Your task to perform on an android device: change the clock display to show seconds Image 0: 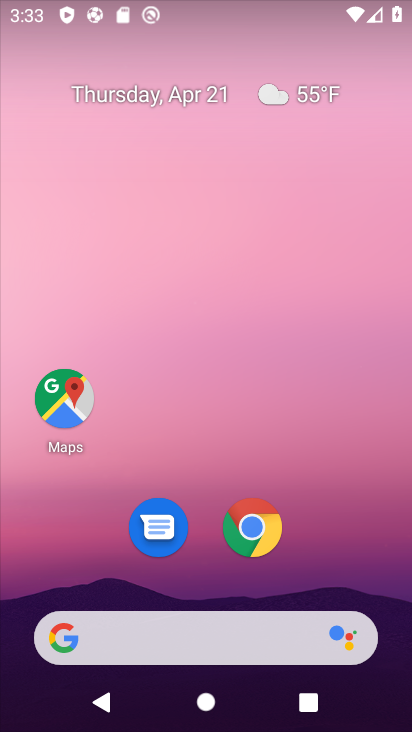
Step 0: drag from (303, 510) to (225, 225)
Your task to perform on an android device: change the clock display to show seconds Image 1: 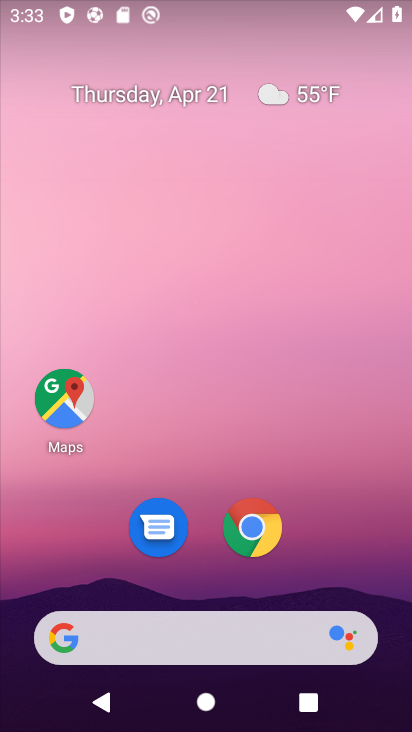
Step 1: drag from (315, 491) to (277, 124)
Your task to perform on an android device: change the clock display to show seconds Image 2: 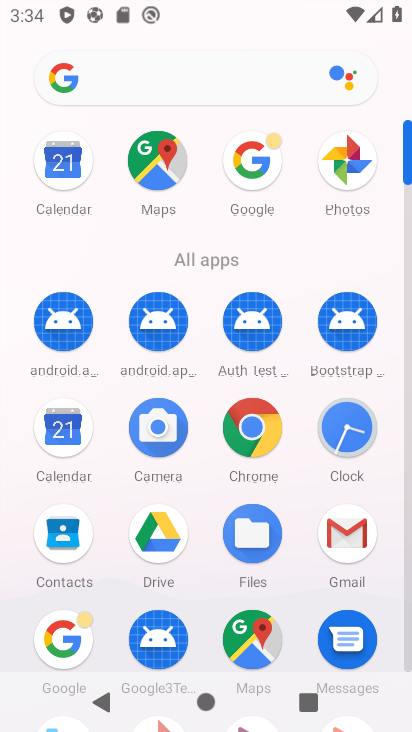
Step 2: drag from (297, 553) to (246, 333)
Your task to perform on an android device: change the clock display to show seconds Image 3: 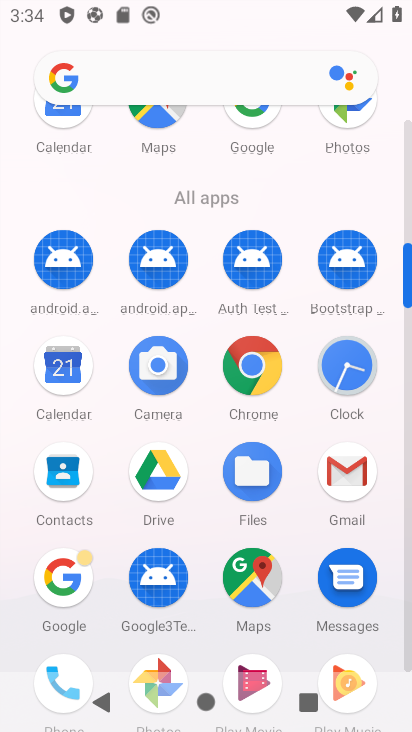
Step 3: drag from (294, 400) to (298, 550)
Your task to perform on an android device: change the clock display to show seconds Image 4: 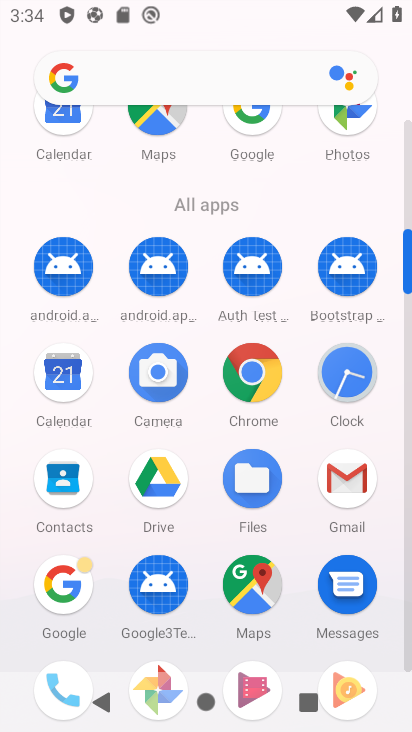
Step 4: drag from (301, 341) to (308, 510)
Your task to perform on an android device: change the clock display to show seconds Image 5: 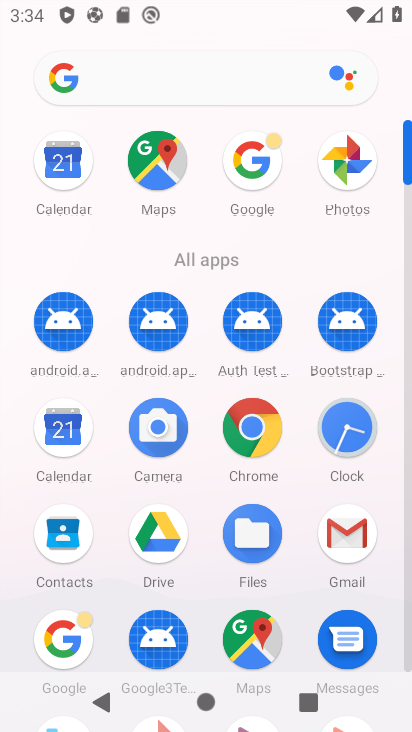
Step 5: click (341, 431)
Your task to perform on an android device: change the clock display to show seconds Image 6: 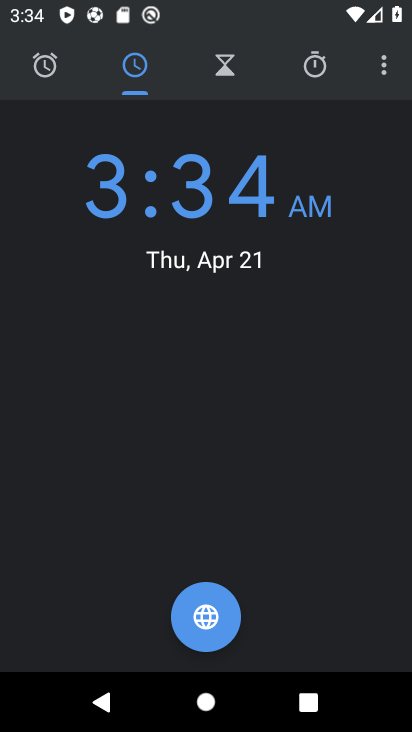
Step 6: click (385, 76)
Your task to perform on an android device: change the clock display to show seconds Image 7: 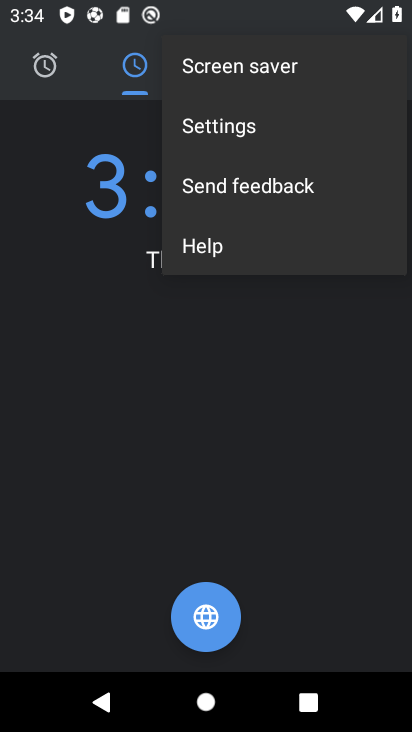
Step 7: click (206, 136)
Your task to perform on an android device: change the clock display to show seconds Image 8: 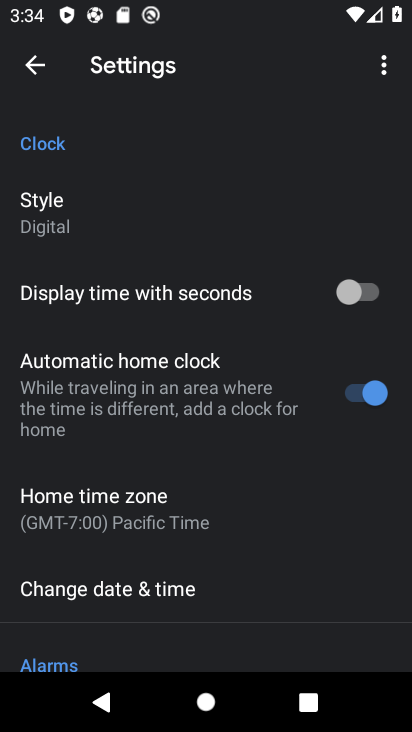
Step 8: click (367, 297)
Your task to perform on an android device: change the clock display to show seconds Image 9: 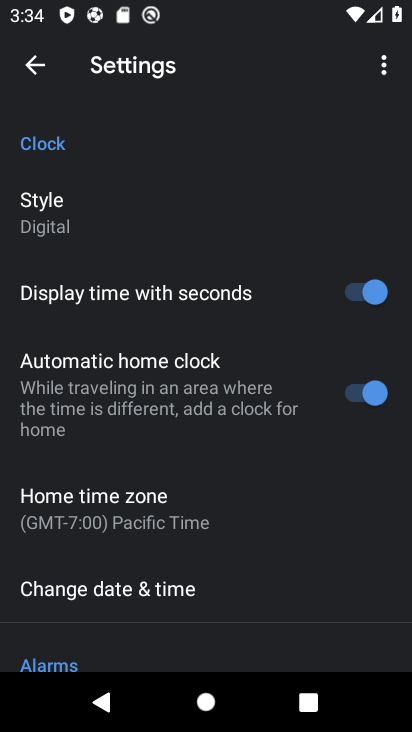
Step 9: task complete